Your task to perform on an android device: Turn off the flashlight Image 0: 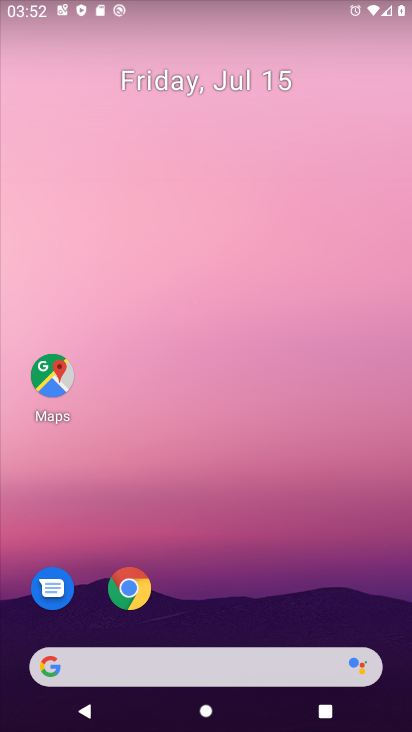
Step 0: drag from (210, 661) to (287, 263)
Your task to perform on an android device: Turn off the flashlight Image 1: 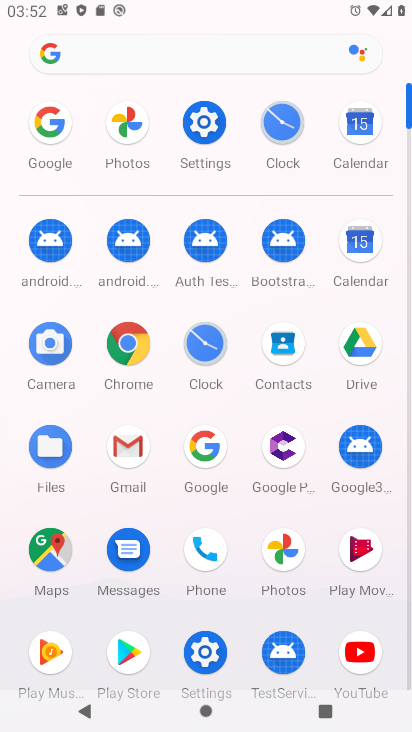
Step 1: click (205, 123)
Your task to perform on an android device: Turn off the flashlight Image 2: 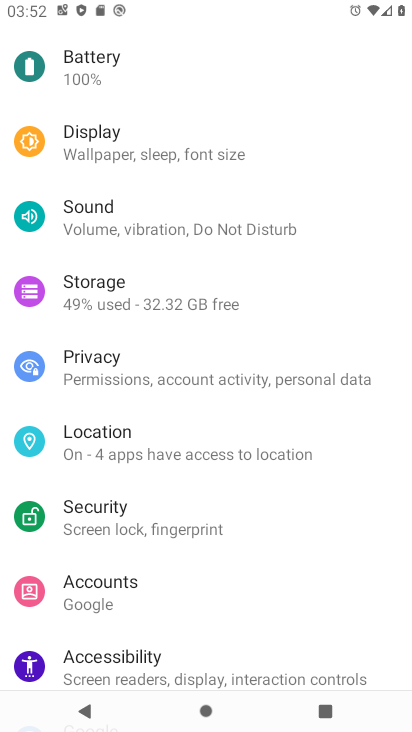
Step 2: drag from (124, 200) to (158, 320)
Your task to perform on an android device: Turn off the flashlight Image 3: 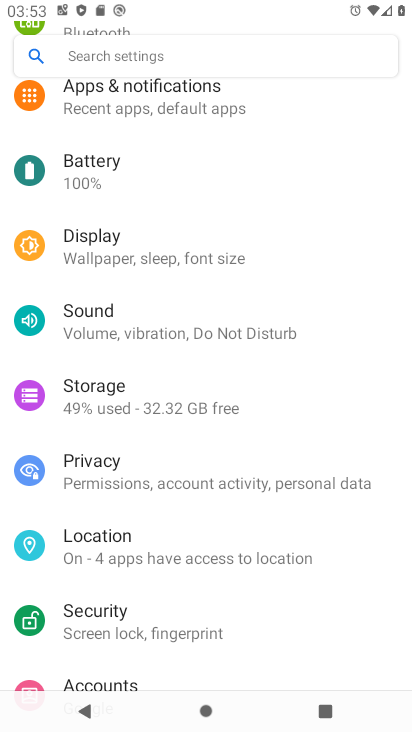
Step 3: click (165, 262)
Your task to perform on an android device: Turn off the flashlight Image 4: 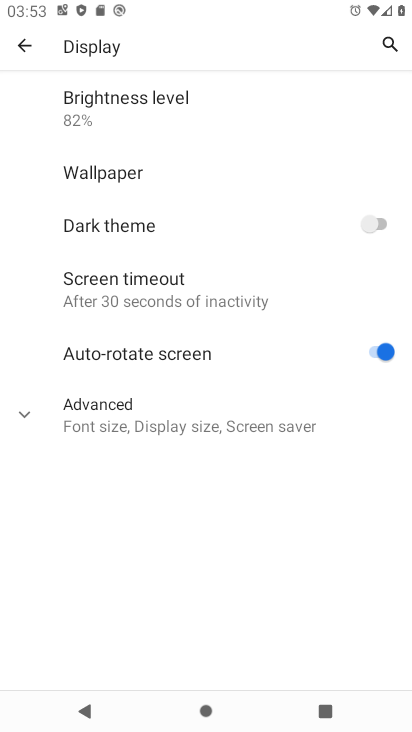
Step 4: click (161, 283)
Your task to perform on an android device: Turn off the flashlight Image 5: 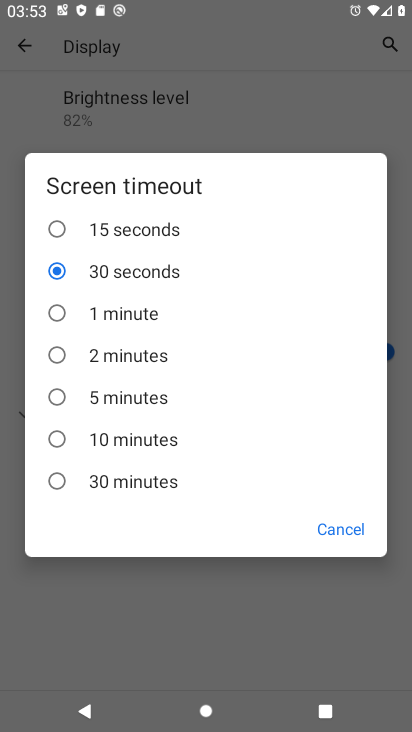
Step 5: click (57, 481)
Your task to perform on an android device: Turn off the flashlight Image 6: 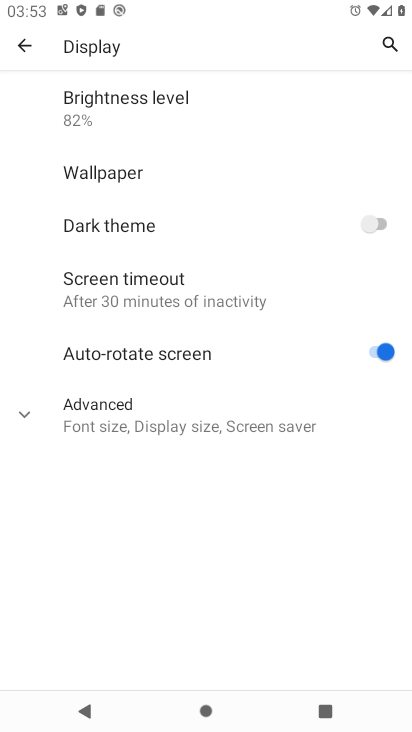
Step 6: click (153, 415)
Your task to perform on an android device: Turn off the flashlight Image 7: 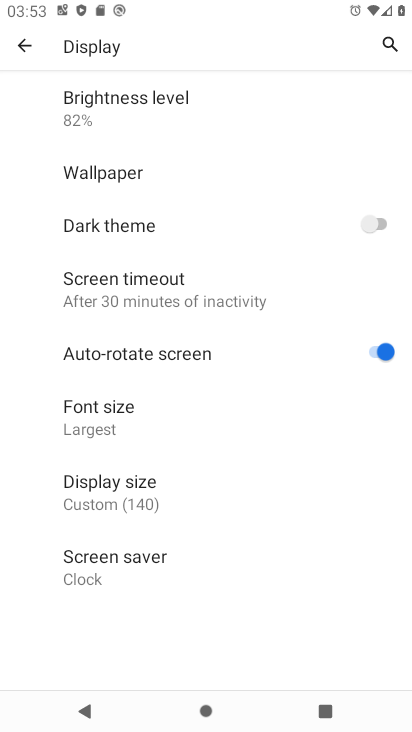
Step 7: task complete